Your task to perform on an android device: open a bookmark in the chrome app Image 0: 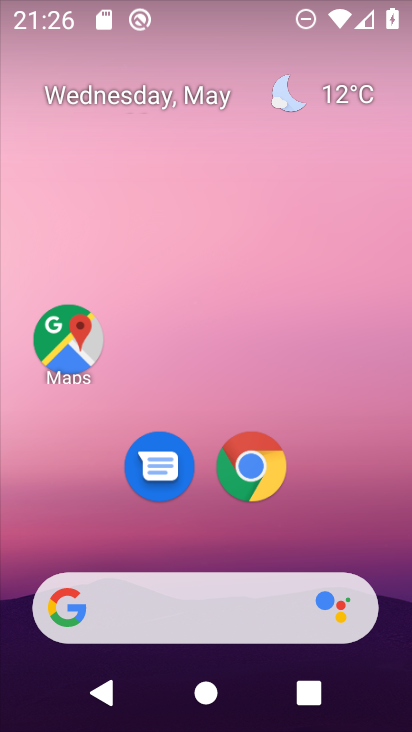
Step 0: press home button
Your task to perform on an android device: open a bookmark in the chrome app Image 1: 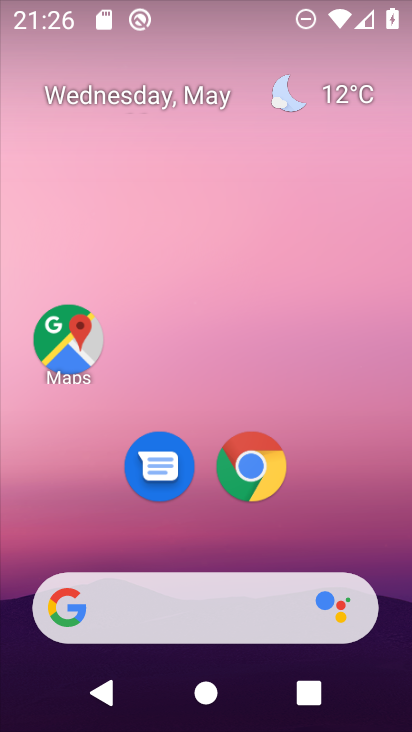
Step 1: click (250, 460)
Your task to perform on an android device: open a bookmark in the chrome app Image 2: 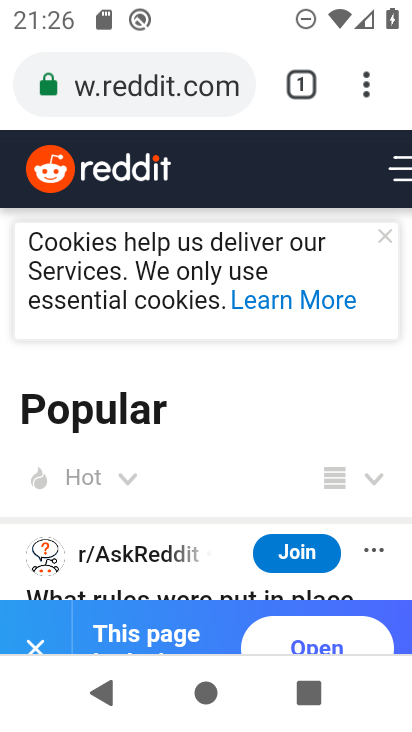
Step 2: click (364, 78)
Your task to perform on an android device: open a bookmark in the chrome app Image 3: 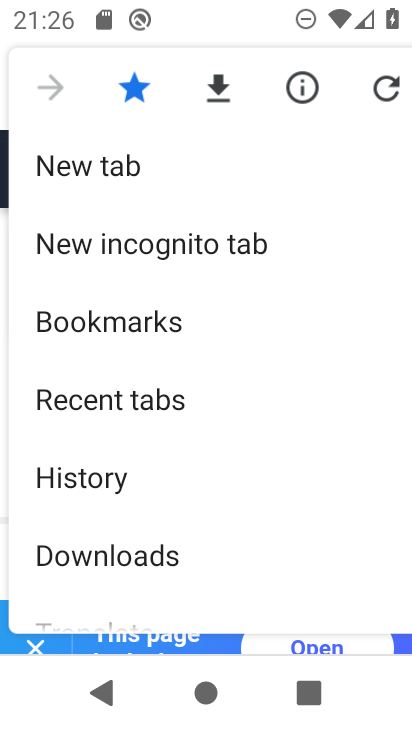
Step 3: click (188, 320)
Your task to perform on an android device: open a bookmark in the chrome app Image 4: 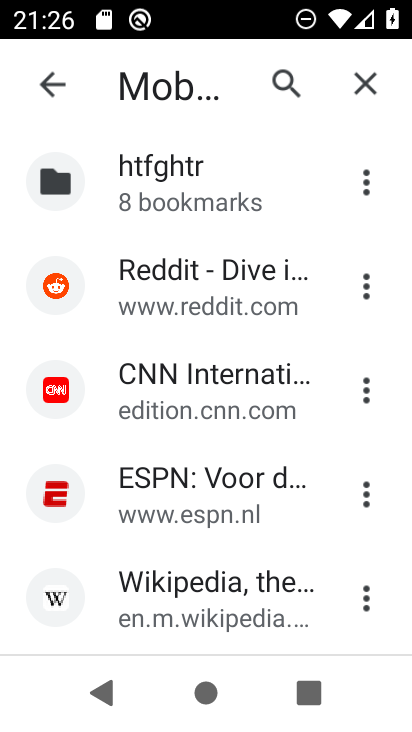
Step 4: click (178, 474)
Your task to perform on an android device: open a bookmark in the chrome app Image 5: 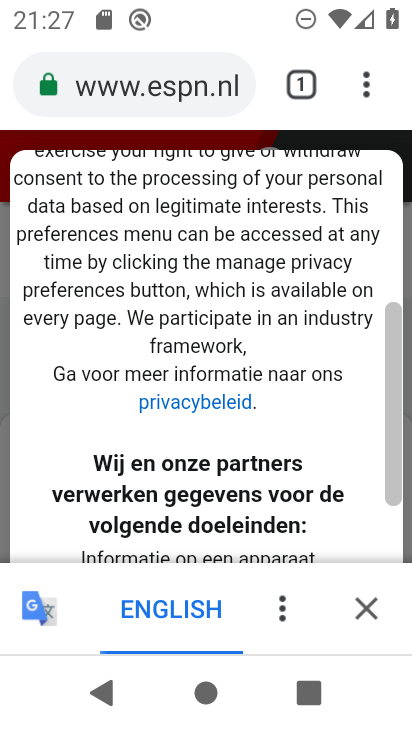
Step 5: click (362, 609)
Your task to perform on an android device: open a bookmark in the chrome app Image 6: 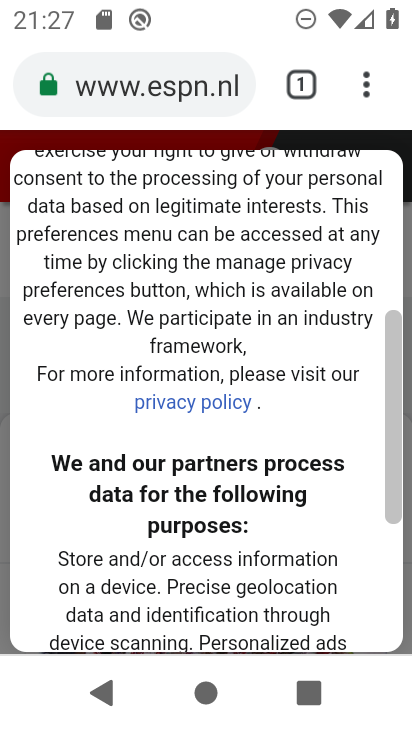
Step 6: drag from (223, 585) to (213, 150)
Your task to perform on an android device: open a bookmark in the chrome app Image 7: 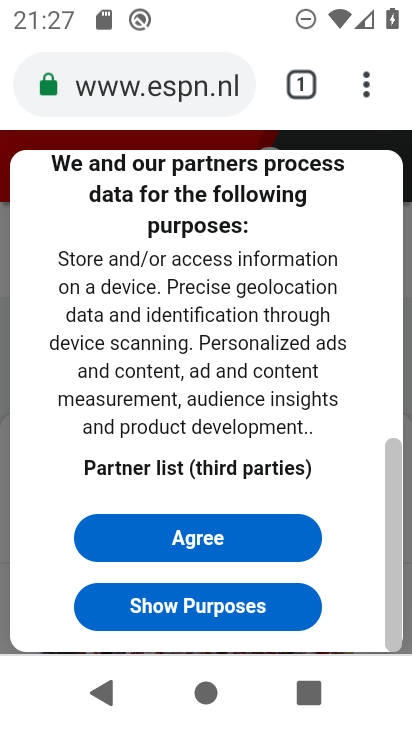
Step 7: click (208, 544)
Your task to perform on an android device: open a bookmark in the chrome app Image 8: 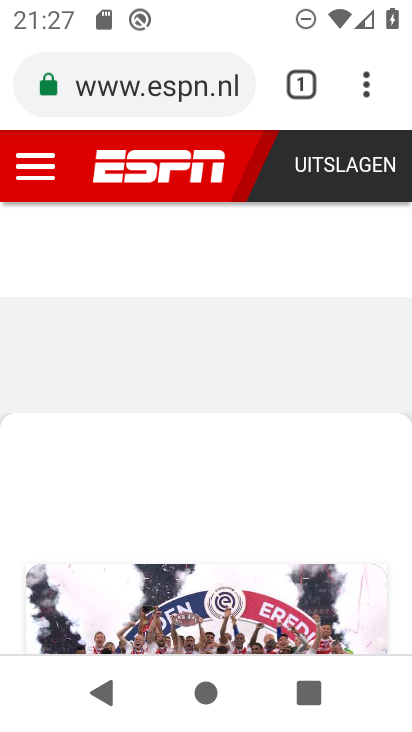
Step 8: task complete